Your task to perform on an android device: see creations saved in the google photos Image 0: 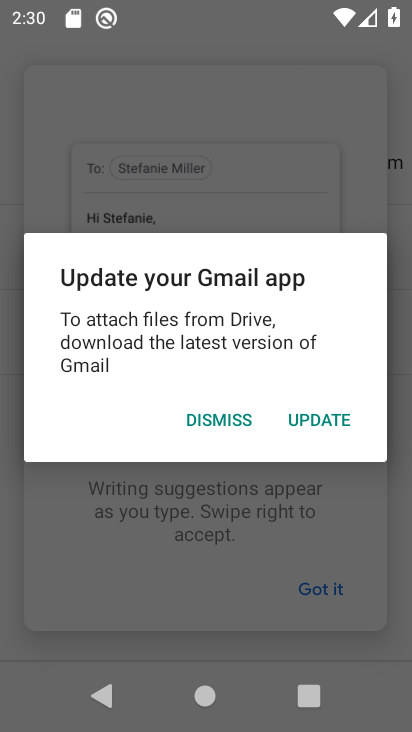
Step 0: press home button
Your task to perform on an android device: see creations saved in the google photos Image 1: 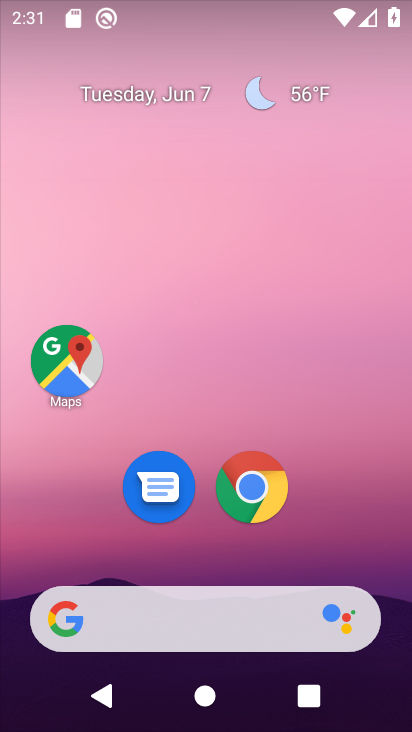
Step 1: drag from (328, 368) to (233, 32)
Your task to perform on an android device: see creations saved in the google photos Image 2: 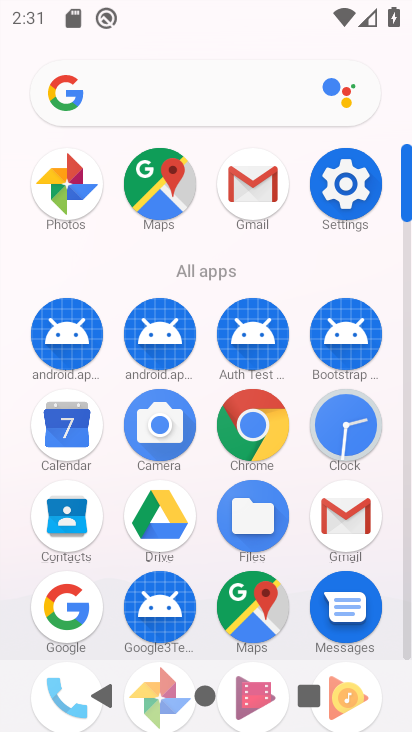
Step 2: click (76, 185)
Your task to perform on an android device: see creations saved in the google photos Image 3: 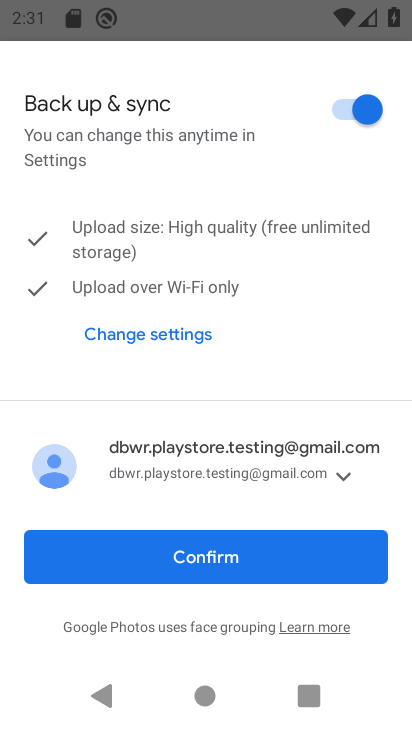
Step 3: click (231, 559)
Your task to perform on an android device: see creations saved in the google photos Image 4: 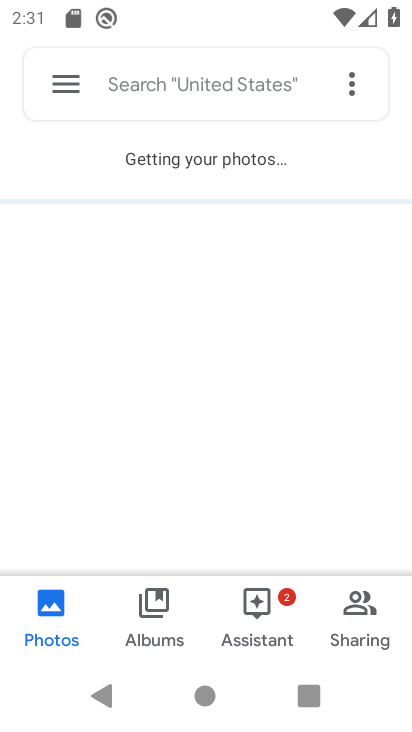
Step 4: click (195, 82)
Your task to perform on an android device: see creations saved in the google photos Image 5: 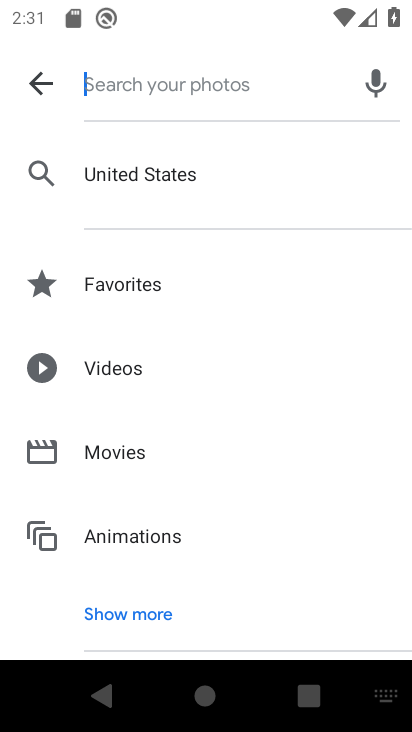
Step 5: click (170, 612)
Your task to perform on an android device: see creations saved in the google photos Image 6: 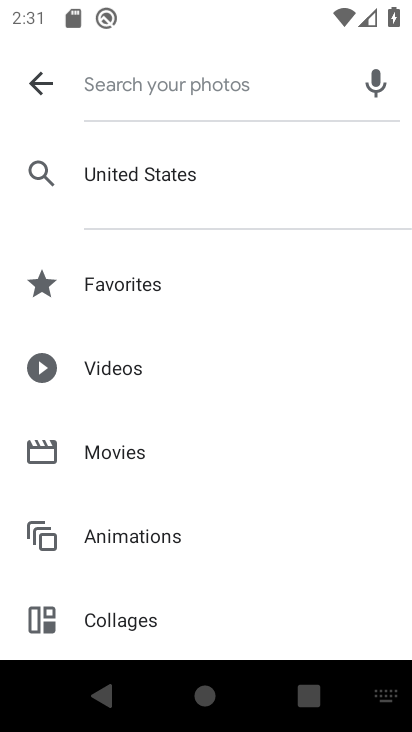
Step 6: drag from (170, 612) to (96, 81)
Your task to perform on an android device: see creations saved in the google photos Image 7: 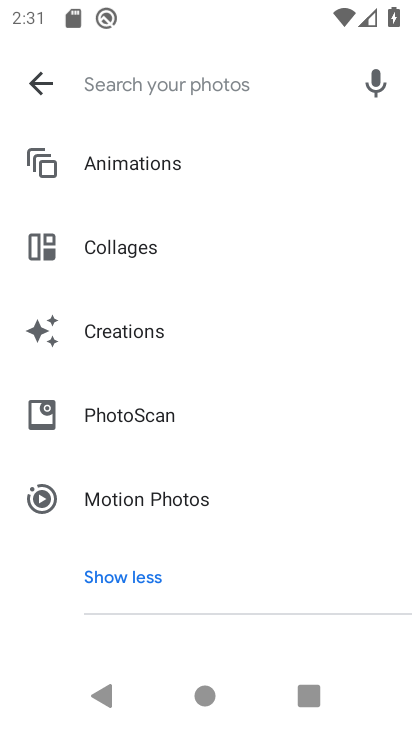
Step 7: click (156, 323)
Your task to perform on an android device: see creations saved in the google photos Image 8: 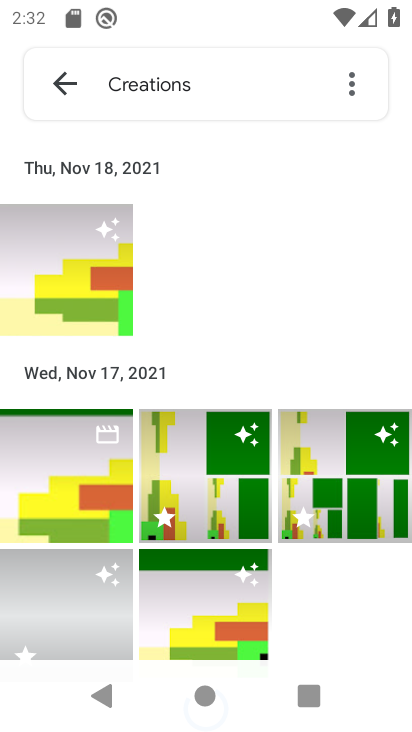
Step 8: task complete